Your task to perform on an android device: Search for sushi restaurants on Maps Image 0: 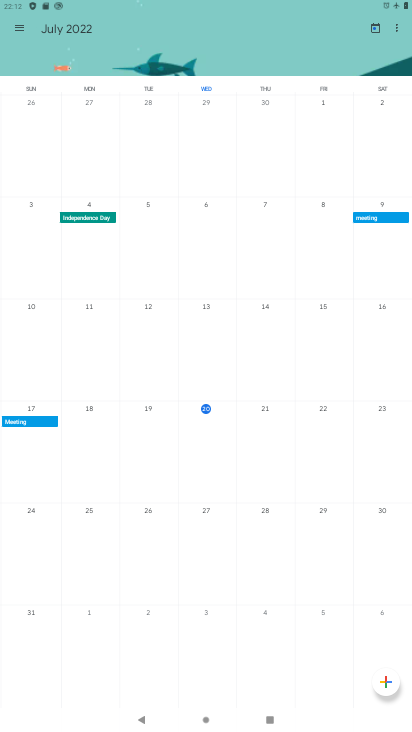
Step 0: press home button
Your task to perform on an android device: Search for sushi restaurants on Maps Image 1: 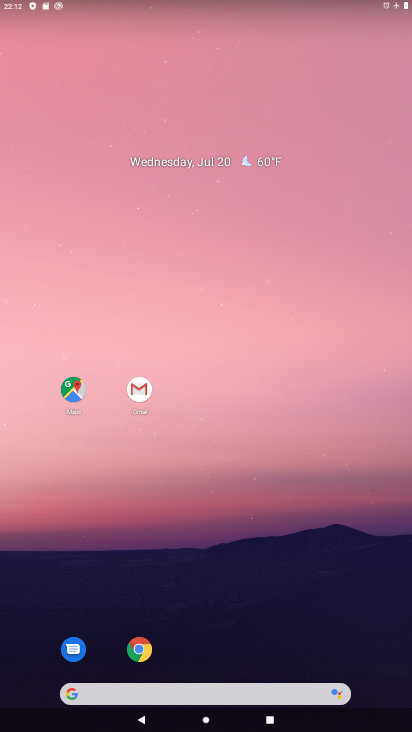
Step 1: click (73, 383)
Your task to perform on an android device: Search for sushi restaurants on Maps Image 2: 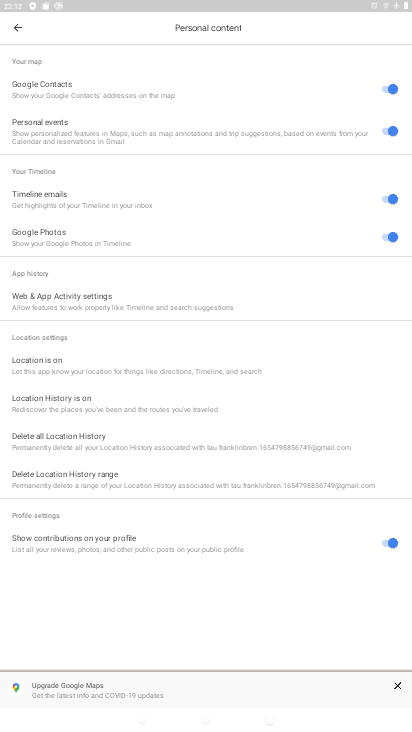
Step 2: click (17, 31)
Your task to perform on an android device: Search for sushi restaurants on Maps Image 3: 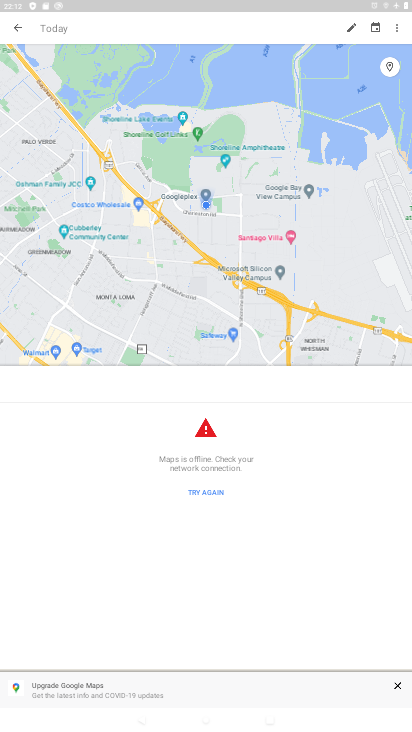
Step 3: click (160, 27)
Your task to perform on an android device: Search for sushi restaurants on Maps Image 4: 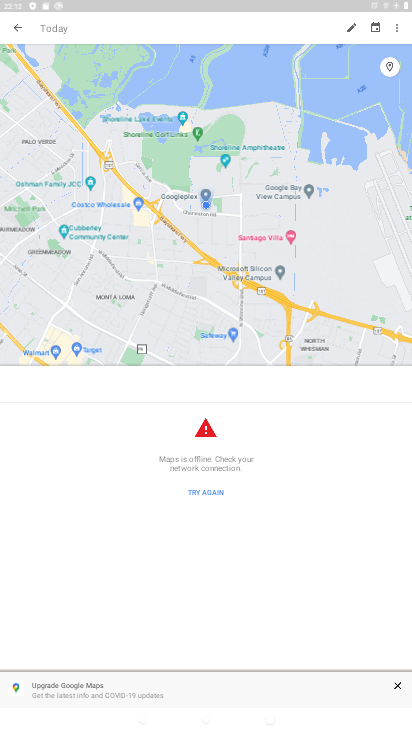
Step 4: click (14, 26)
Your task to perform on an android device: Search for sushi restaurants on Maps Image 5: 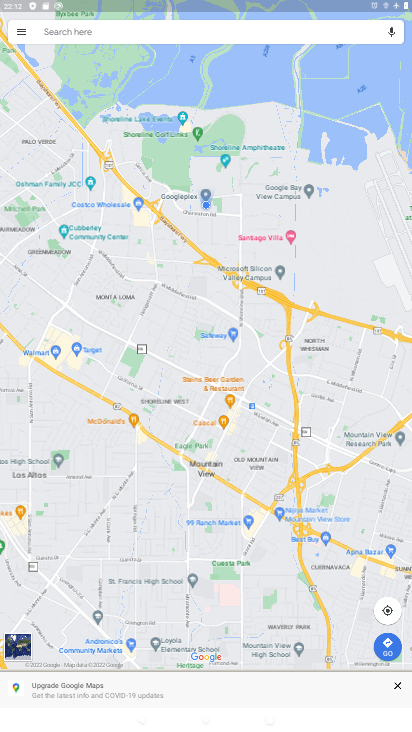
Step 5: click (78, 33)
Your task to perform on an android device: Search for sushi restaurants on Maps Image 6: 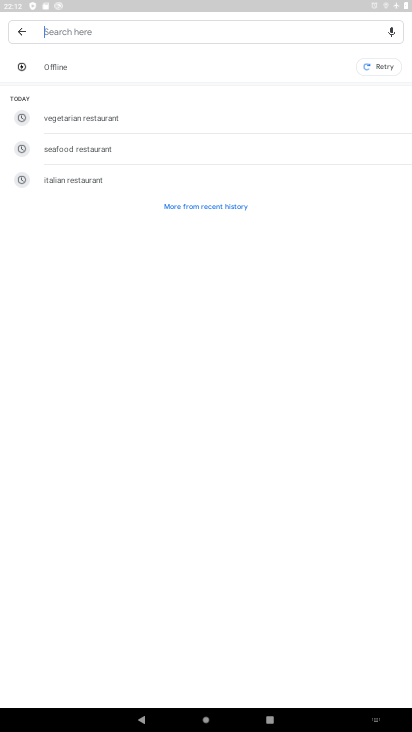
Step 6: type "sushi restaurants"
Your task to perform on an android device: Search for sushi restaurants on Maps Image 7: 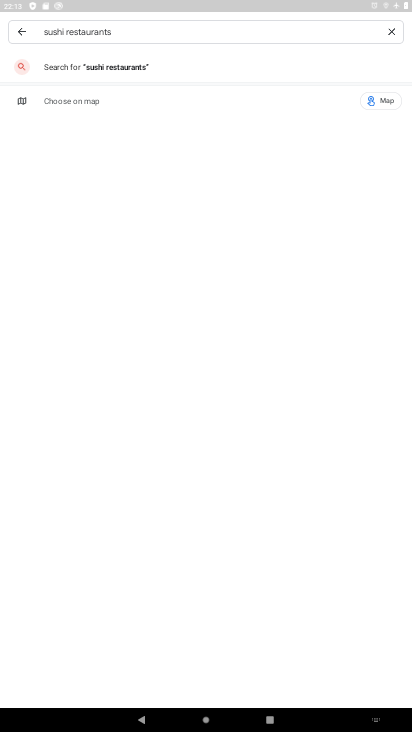
Step 7: click (68, 69)
Your task to perform on an android device: Search for sushi restaurants on Maps Image 8: 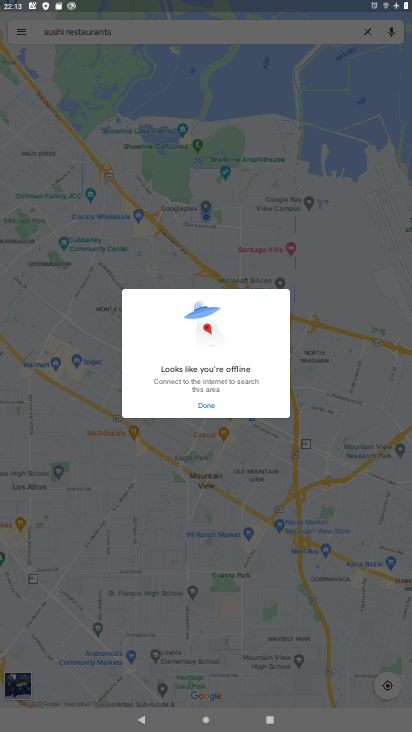
Step 8: click (205, 405)
Your task to perform on an android device: Search for sushi restaurants on Maps Image 9: 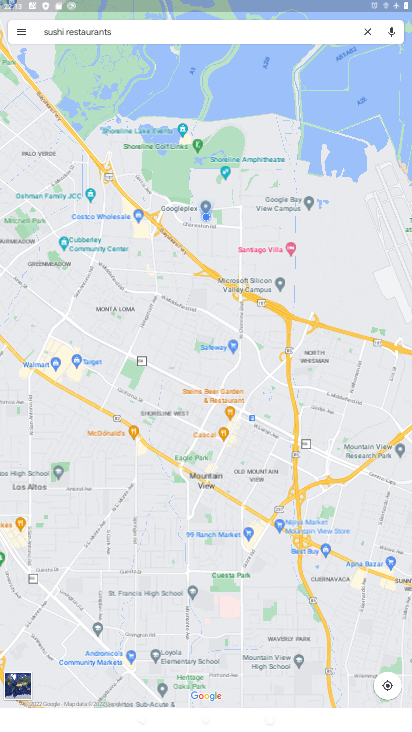
Step 9: task complete